Your task to perform on an android device: delete browsing data in the chrome app Image 0: 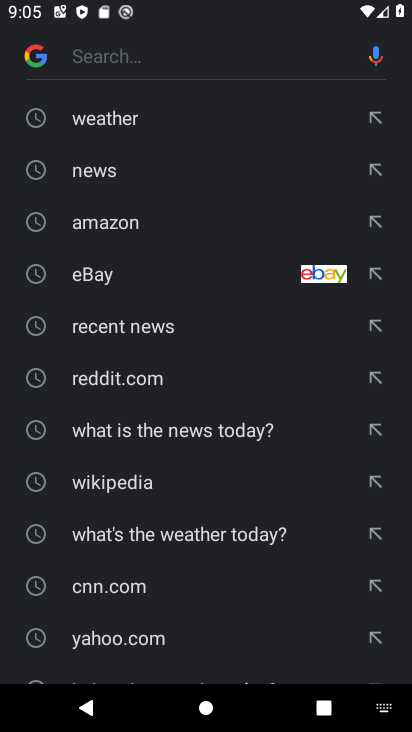
Step 0: press home button
Your task to perform on an android device: delete browsing data in the chrome app Image 1: 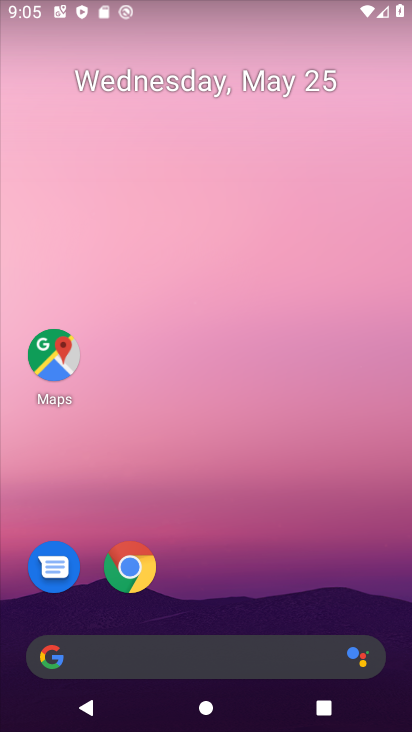
Step 1: click (126, 578)
Your task to perform on an android device: delete browsing data in the chrome app Image 2: 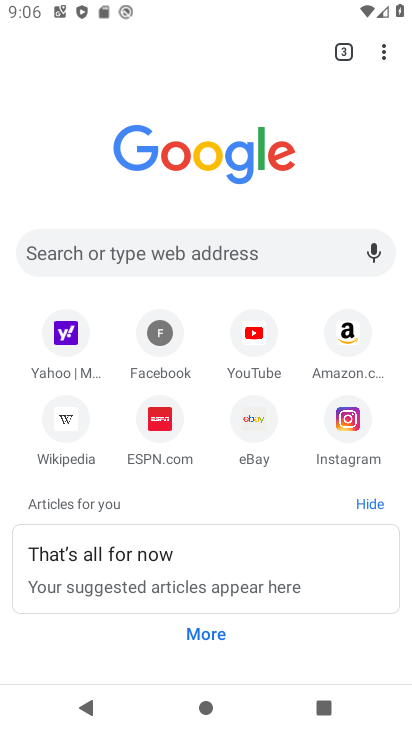
Step 2: click (385, 62)
Your task to perform on an android device: delete browsing data in the chrome app Image 3: 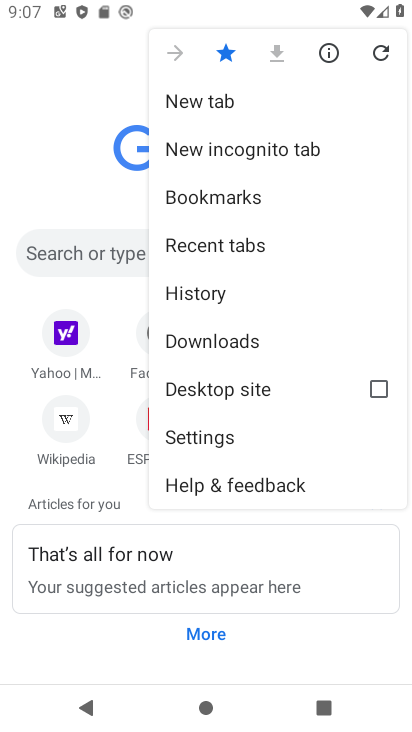
Step 3: click (185, 439)
Your task to perform on an android device: delete browsing data in the chrome app Image 4: 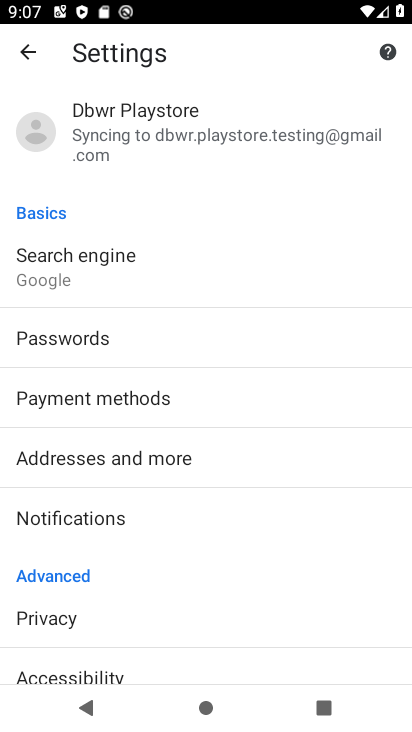
Step 4: task complete